Your task to perform on an android device: Open Google Image 0: 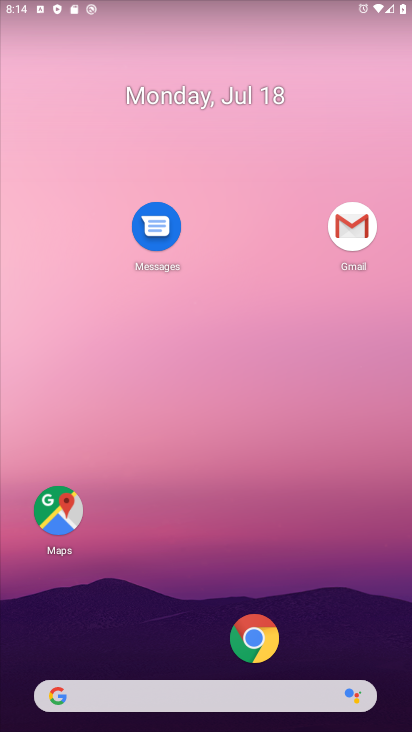
Step 0: drag from (197, 658) to (191, 116)
Your task to perform on an android device: Open Google Image 1: 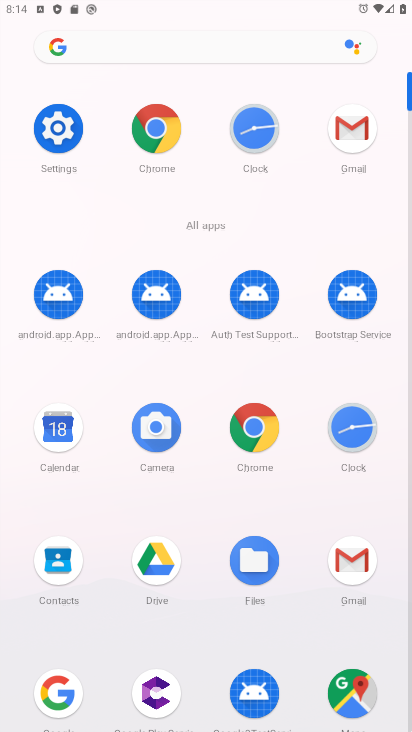
Step 1: click (62, 678)
Your task to perform on an android device: Open Google Image 2: 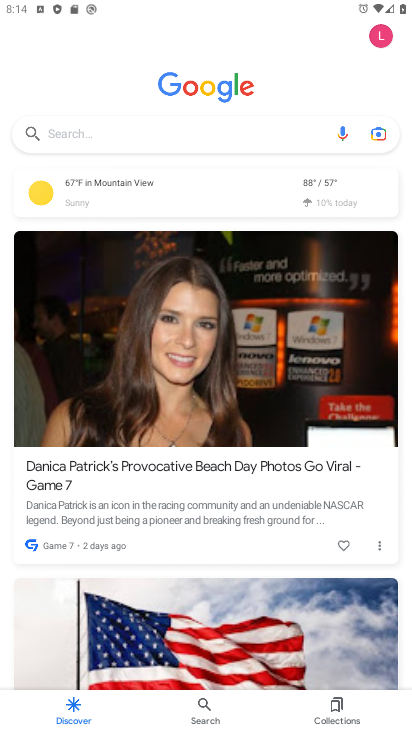
Step 2: drag from (185, 560) to (186, 119)
Your task to perform on an android device: Open Google Image 3: 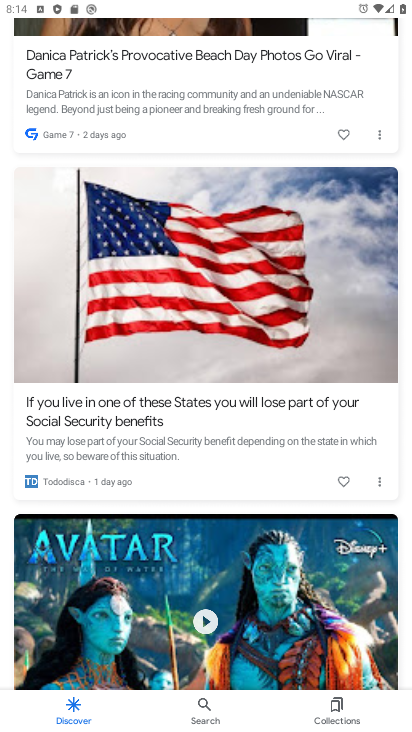
Step 3: press home button
Your task to perform on an android device: Open Google Image 4: 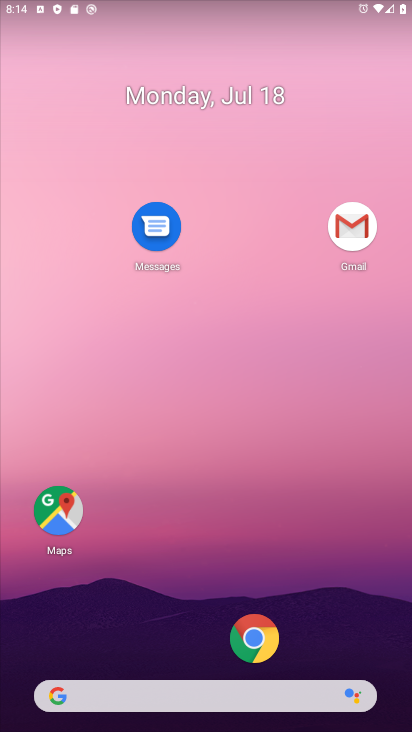
Step 4: drag from (157, 636) to (181, 85)
Your task to perform on an android device: Open Google Image 5: 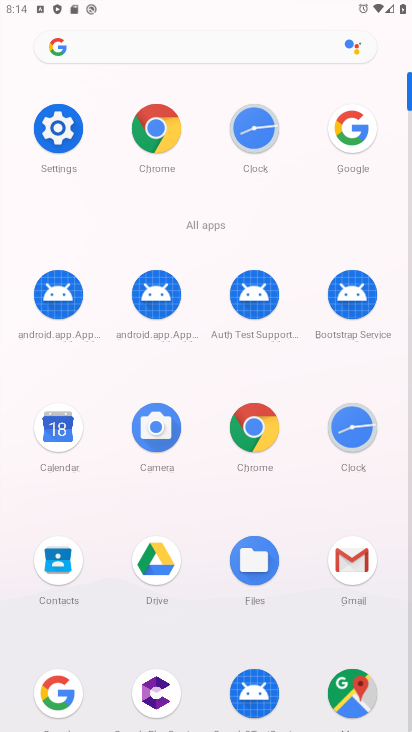
Step 5: click (62, 684)
Your task to perform on an android device: Open Google Image 6: 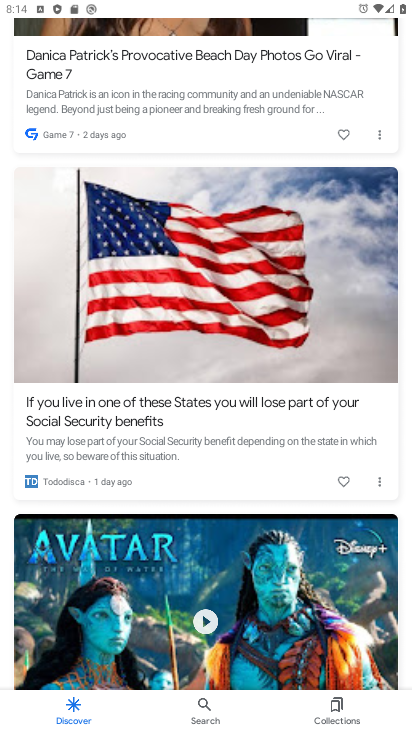
Step 6: click (198, 714)
Your task to perform on an android device: Open Google Image 7: 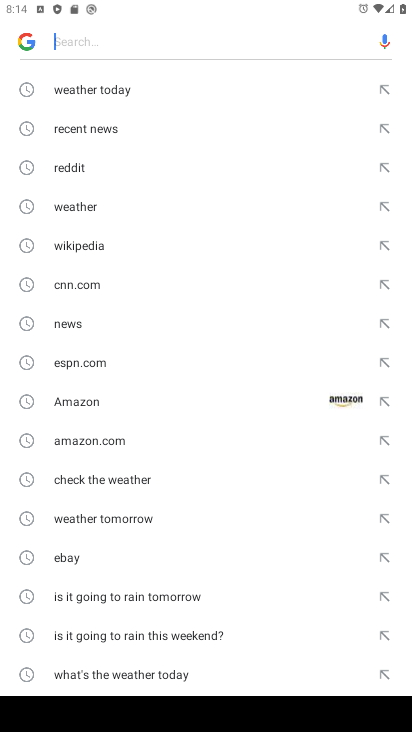
Step 7: task complete